Your task to perform on an android device: uninstall "The Home Depot" Image 0: 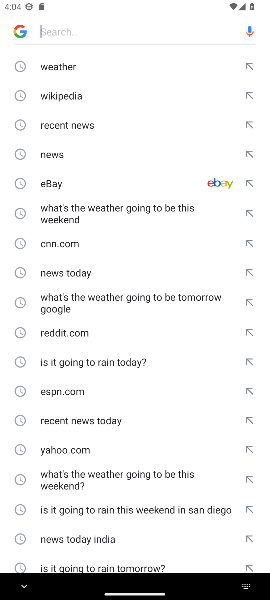
Step 0: press home button
Your task to perform on an android device: uninstall "The Home Depot" Image 1: 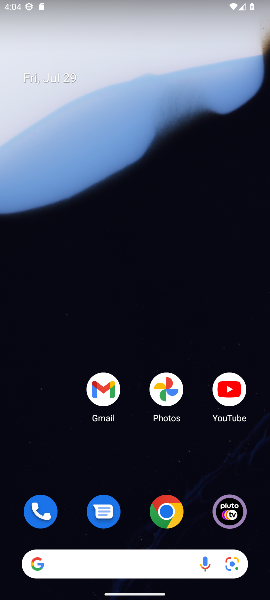
Step 1: click (180, 218)
Your task to perform on an android device: uninstall "The Home Depot" Image 2: 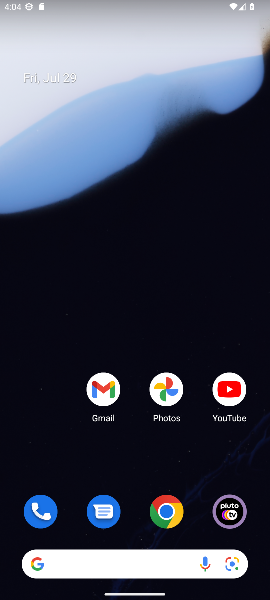
Step 2: drag from (129, 512) to (129, 152)
Your task to perform on an android device: uninstall "The Home Depot" Image 3: 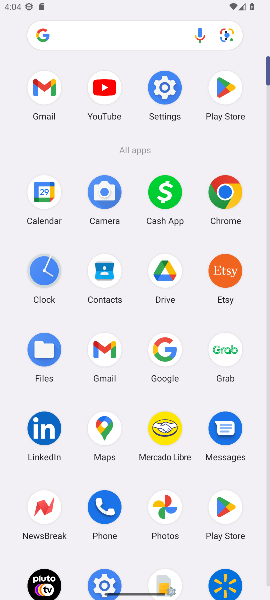
Step 3: click (223, 93)
Your task to perform on an android device: uninstall "The Home Depot" Image 4: 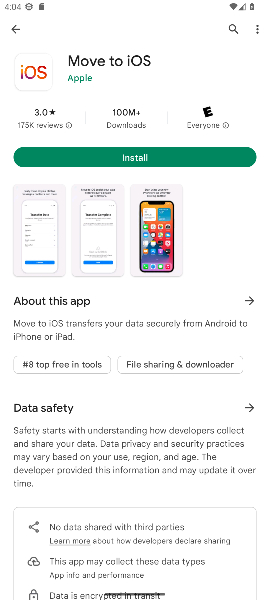
Step 4: click (44, 34)
Your task to perform on an android device: uninstall "The Home Depot" Image 5: 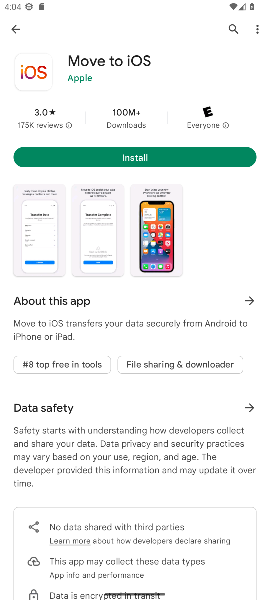
Step 5: click (13, 33)
Your task to perform on an android device: uninstall "The Home Depot" Image 6: 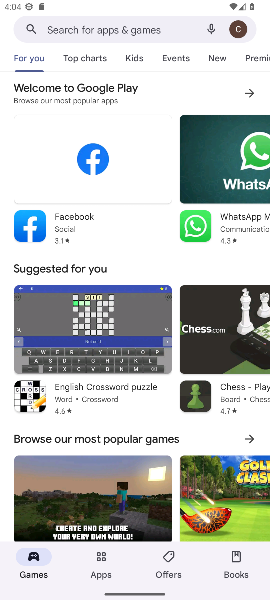
Step 6: click (83, 32)
Your task to perform on an android device: uninstall "The Home Depot" Image 7: 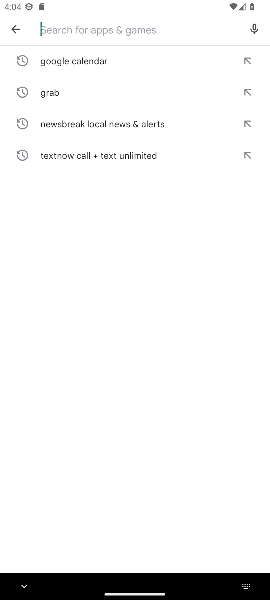
Step 7: type "The Home Depot"
Your task to perform on an android device: uninstall "The Home Depot" Image 8: 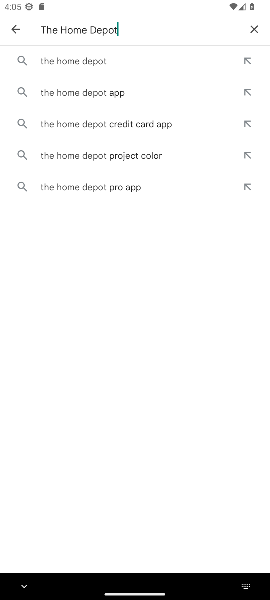
Step 8: click (85, 64)
Your task to perform on an android device: uninstall "The Home Depot" Image 9: 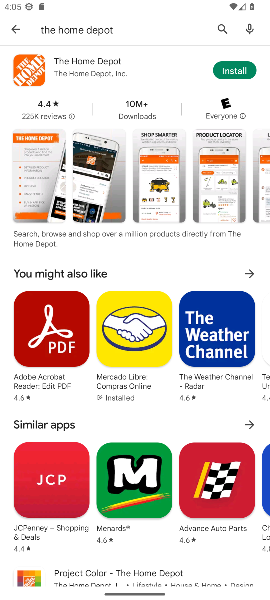
Step 9: task complete